Your task to perform on an android device: Open the web browser Image 0: 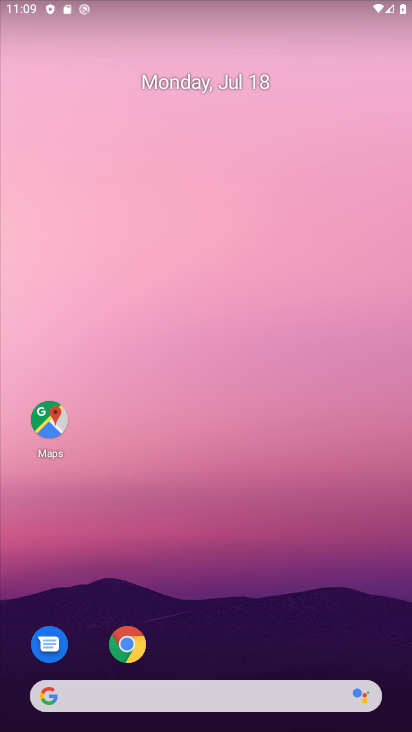
Step 0: drag from (236, 669) to (239, 258)
Your task to perform on an android device: Open the web browser Image 1: 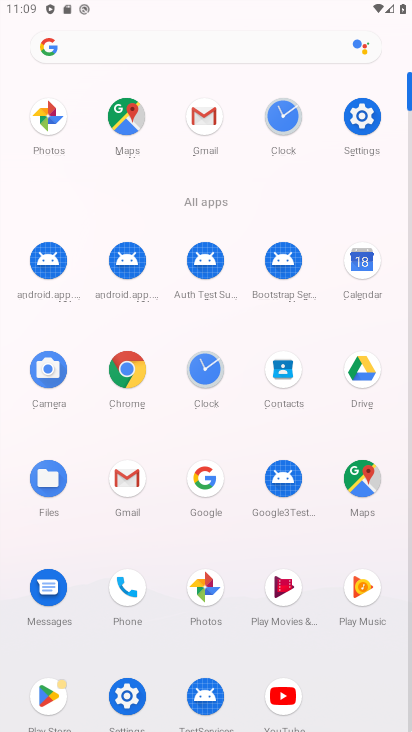
Step 1: click (198, 479)
Your task to perform on an android device: Open the web browser Image 2: 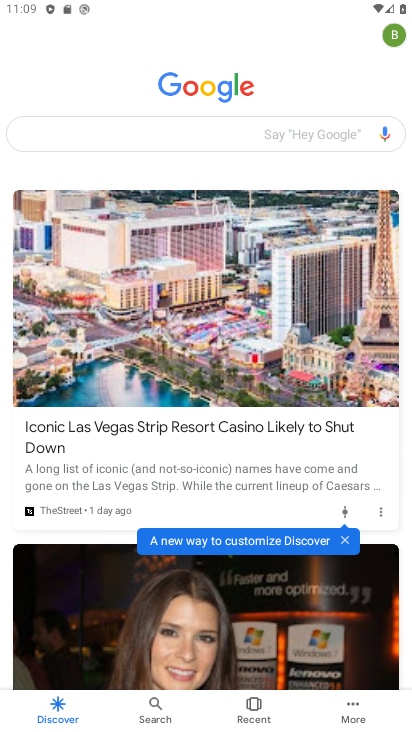
Step 2: task complete